Your task to perform on an android device: delete the emails in spam in the gmail app Image 0: 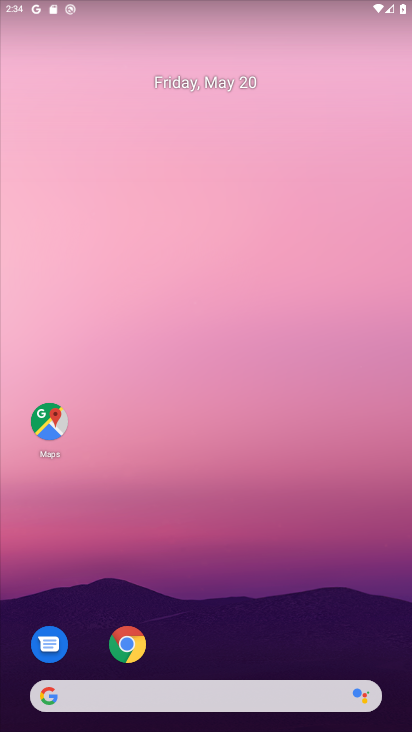
Step 0: drag from (208, 618) to (184, 135)
Your task to perform on an android device: delete the emails in spam in the gmail app Image 1: 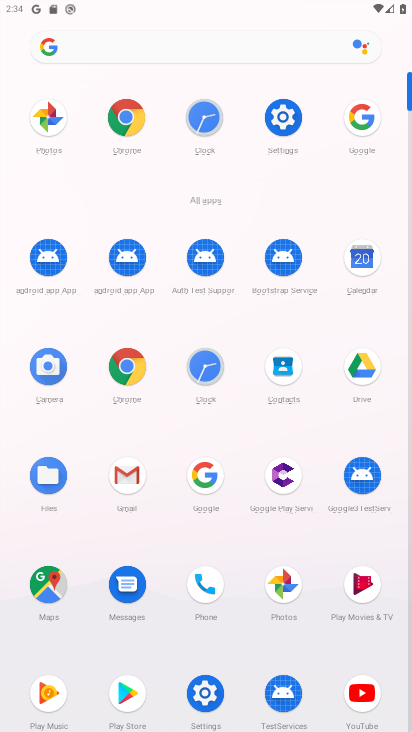
Step 1: click (137, 476)
Your task to perform on an android device: delete the emails in spam in the gmail app Image 2: 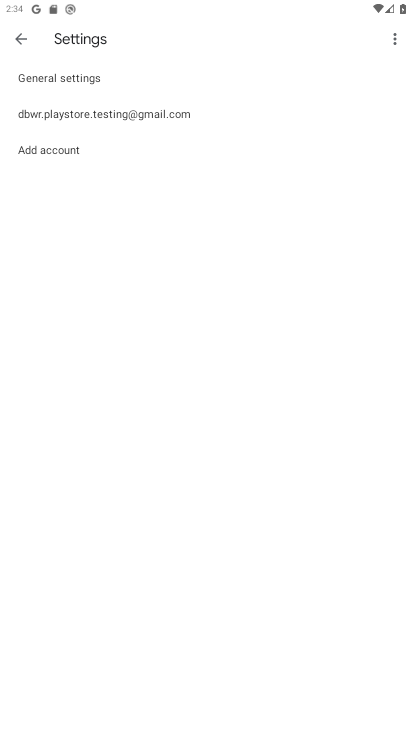
Step 2: press back button
Your task to perform on an android device: delete the emails in spam in the gmail app Image 3: 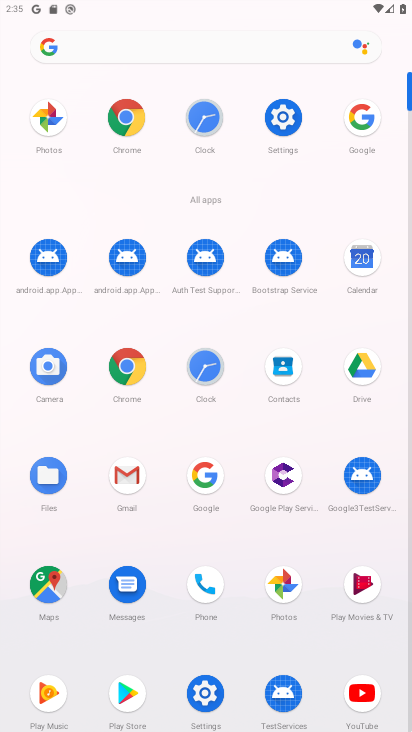
Step 3: click (111, 489)
Your task to perform on an android device: delete the emails in spam in the gmail app Image 4: 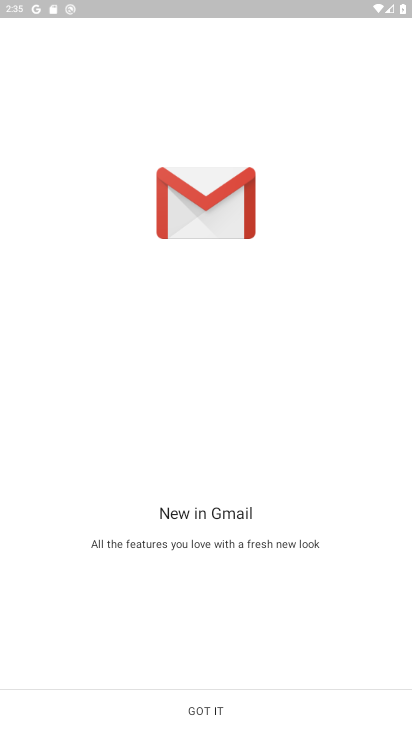
Step 4: click (223, 707)
Your task to perform on an android device: delete the emails in spam in the gmail app Image 5: 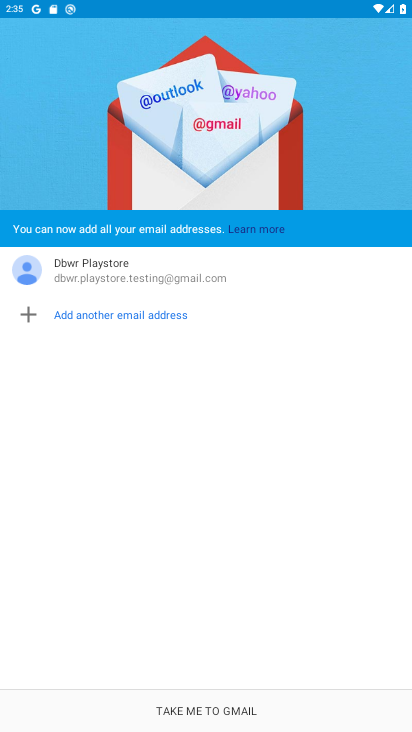
Step 5: click (206, 710)
Your task to perform on an android device: delete the emails in spam in the gmail app Image 6: 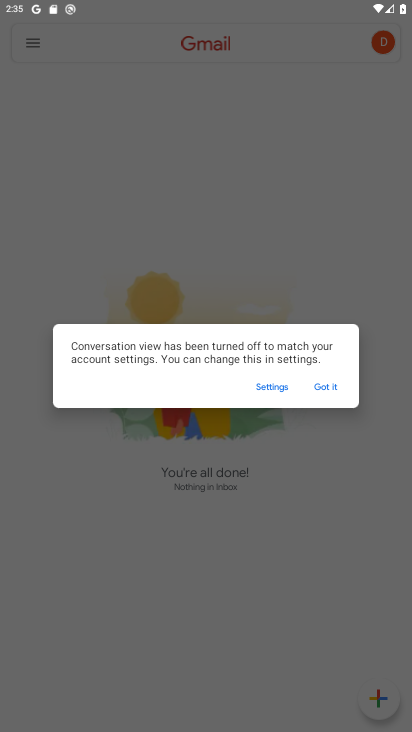
Step 6: click (326, 385)
Your task to perform on an android device: delete the emails in spam in the gmail app Image 7: 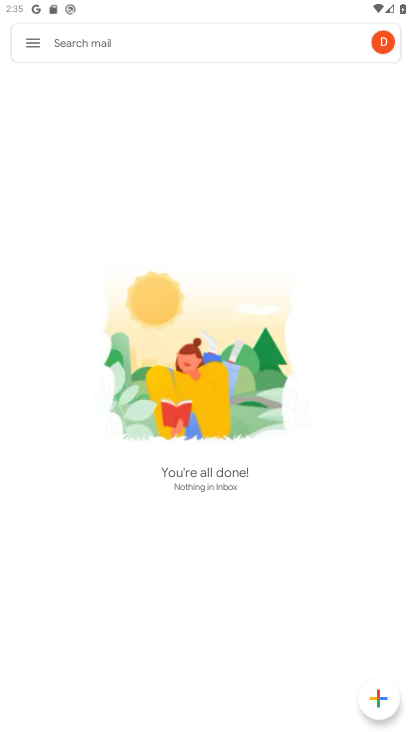
Step 7: click (27, 47)
Your task to perform on an android device: delete the emails in spam in the gmail app Image 8: 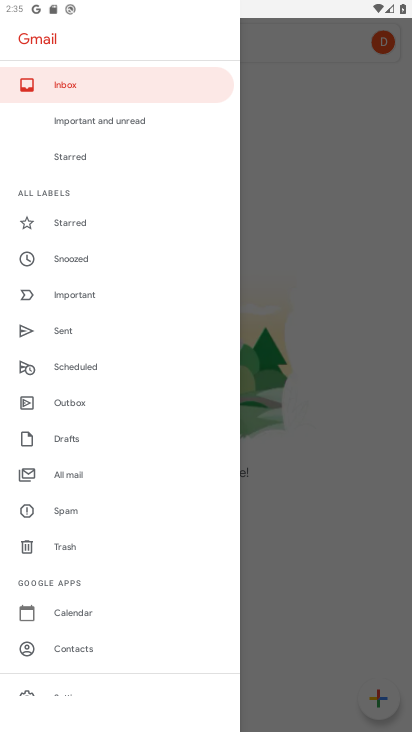
Step 8: click (89, 515)
Your task to perform on an android device: delete the emails in spam in the gmail app Image 9: 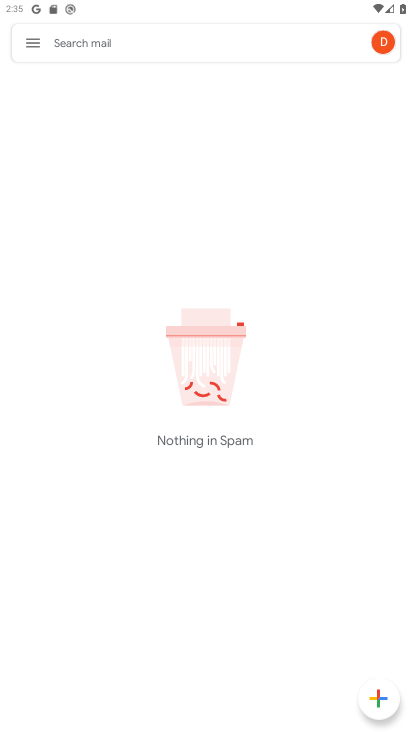
Step 9: task complete